Your task to perform on an android device: turn off improve location accuracy Image 0: 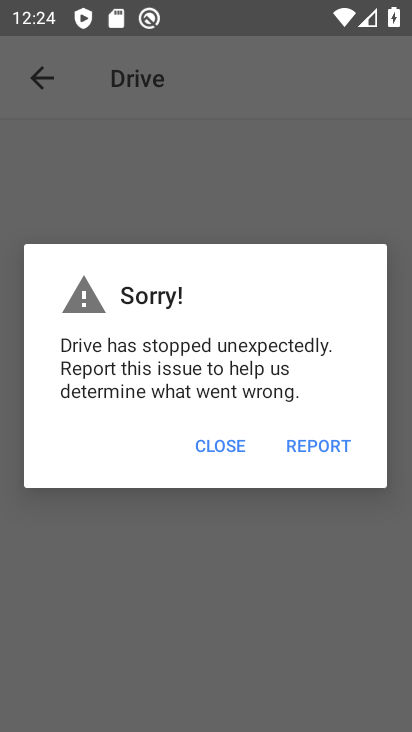
Step 0: drag from (256, 605) to (239, 12)
Your task to perform on an android device: turn off improve location accuracy Image 1: 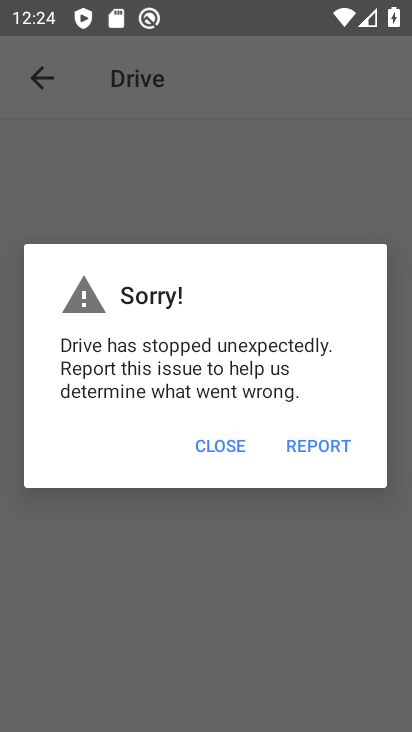
Step 1: press home button
Your task to perform on an android device: turn off improve location accuracy Image 2: 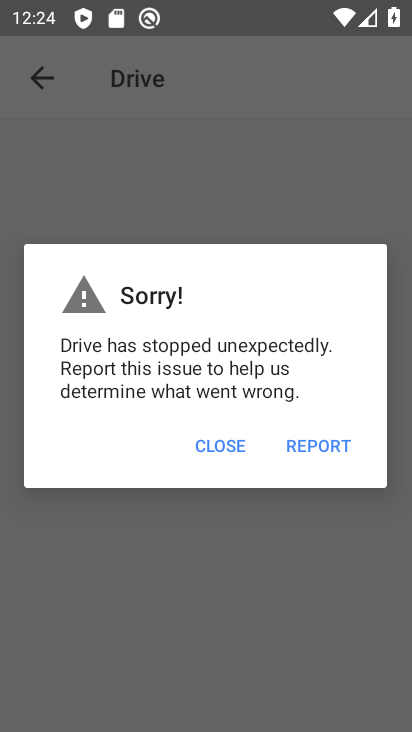
Step 2: drag from (239, 12) to (386, 448)
Your task to perform on an android device: turn off improve location accuracy Image 3: 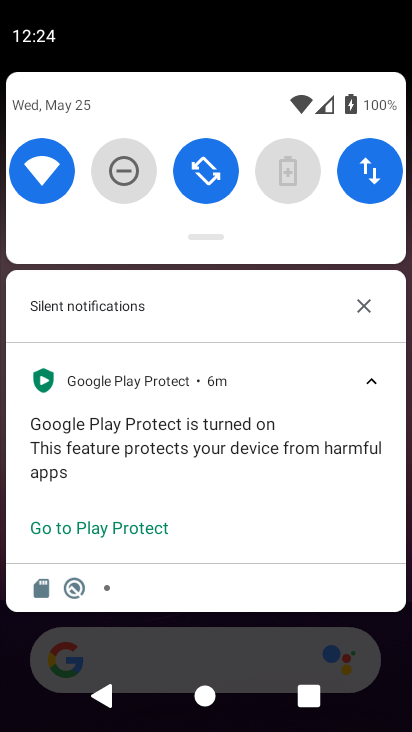
Step 3: press home button
Your task to perform on an android device: turn off improve location accuracy Image 4: 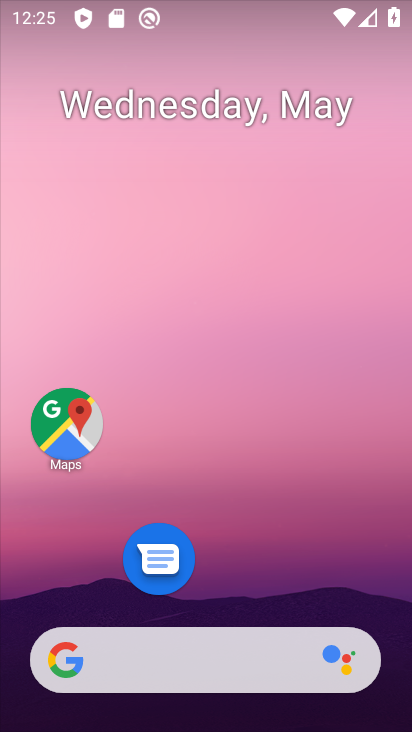
Step 4: drag from (243, 597) to (183, 37)
Your task to perform on an android device: turn off improve location accuracy Image 5: 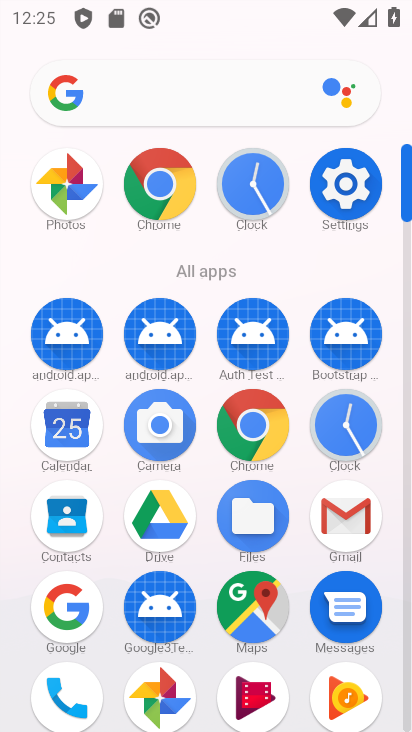
Step 5: click (323, 167)
Your task to perform on an android device: turn off improve location accuracy Image 6: 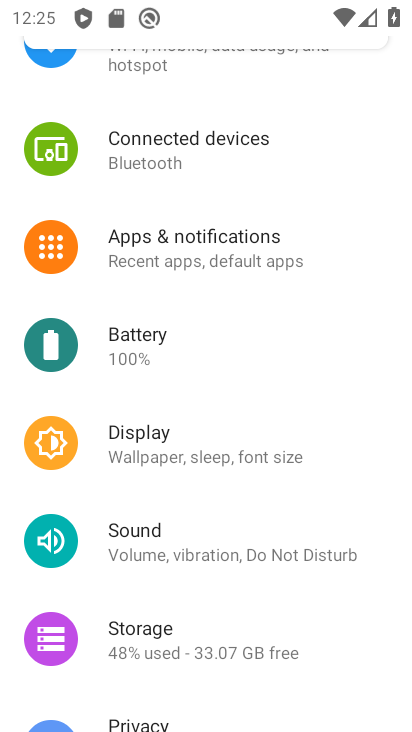
Step 6: drag from (142, 597) to (157, 242)
Your task to perform on an android device: turn off improve location accuracy Image 7: 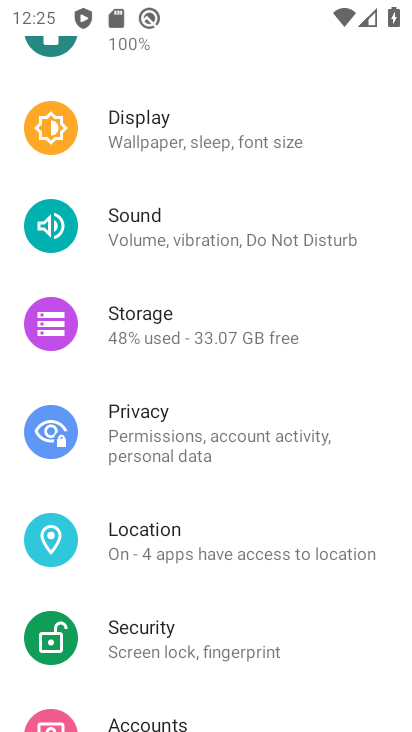
Step 7: click (110, 565)
Your task to perform on an android device: turn off improve location accuracy Image 8: 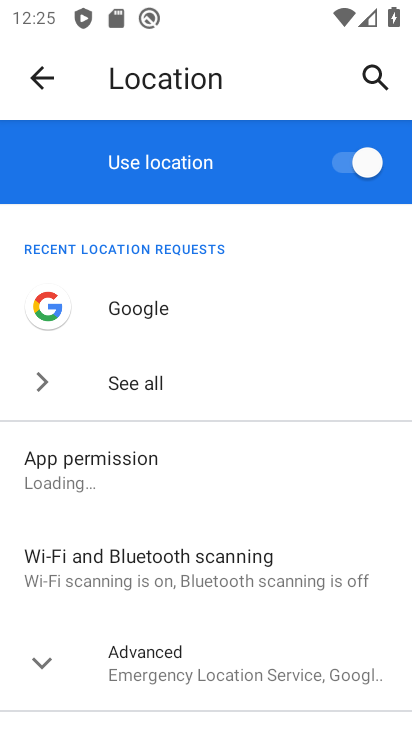
Step 8: click (199, 639)
Your task to perform on an android device: turn off improve location accuracy Image 9: 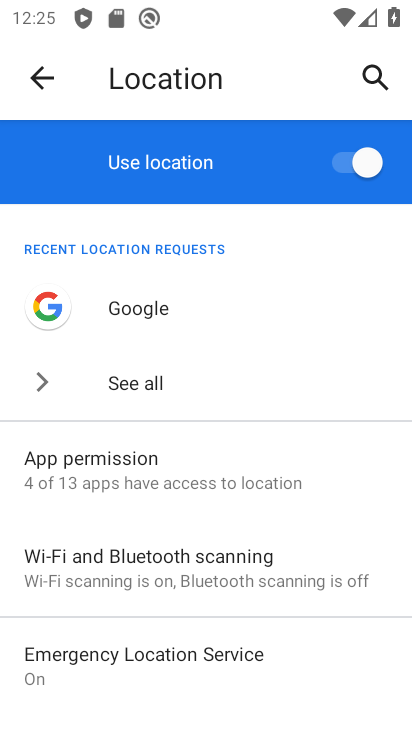
Step 9: drag from (199, 639) to (192, 289)
Your task to perform on an android device: turn off improve location accuracy Image 10: 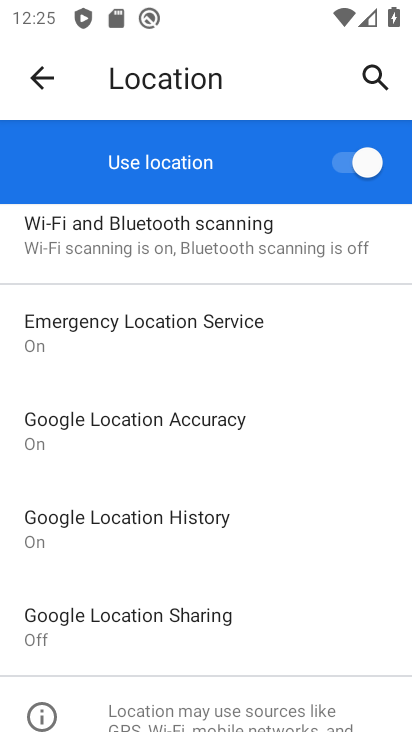
Step 10: click (137, 424)
Your task to perform on an android device: turn off improve location accuracy Image 11: 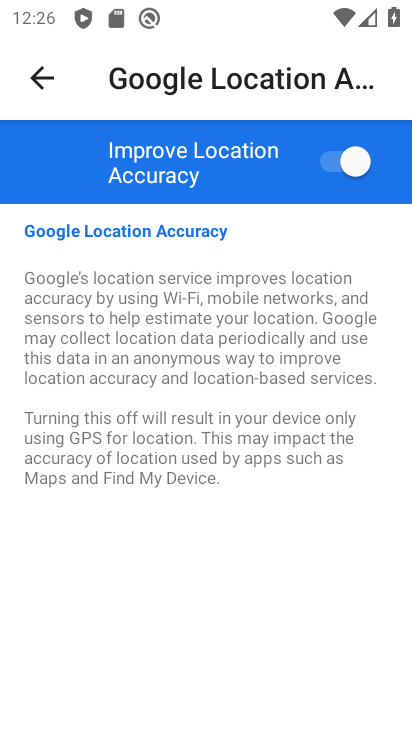
Step 11: click (331, 152)
Your task to perform on an android device: turn off improve location accuracy Image 12: 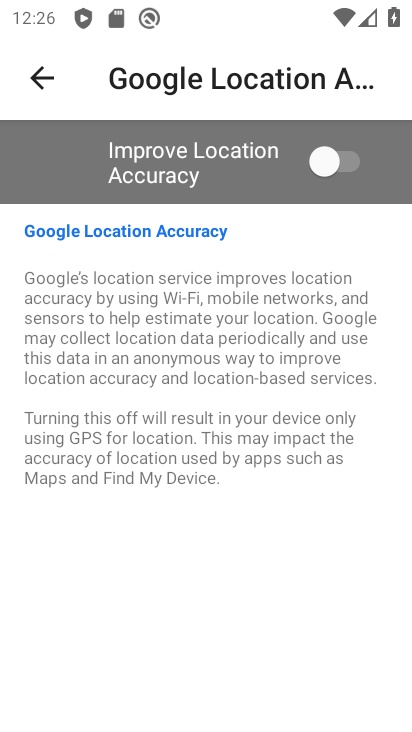
Step 12: task complete